Your task to perform on an android device: What's on my calendar tomorrow? Image 0: 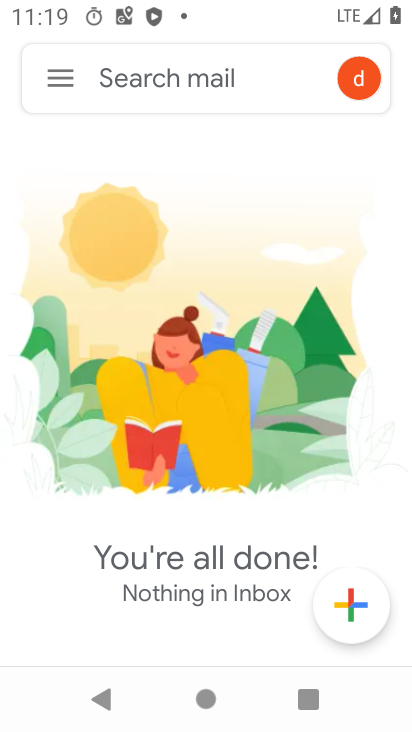
Step 0: press home button
Your task to perform on an android device: What's on my calendar tomorrow? Image 1: 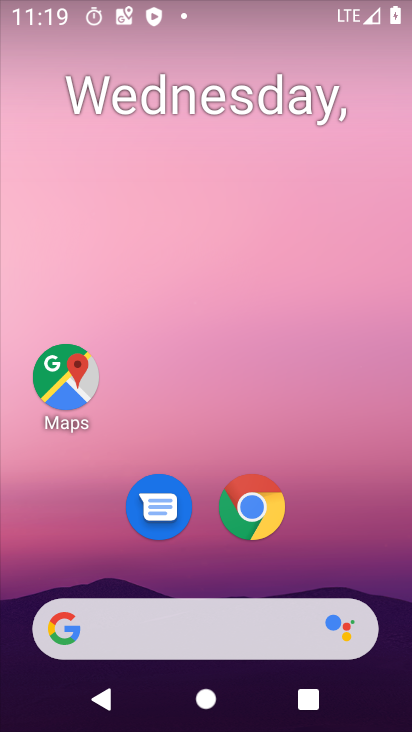
Step 1: drag from (240, 721) to (209, 93)
Your task to perform on an android device: What's on my calendar tomorrow? Image 2: 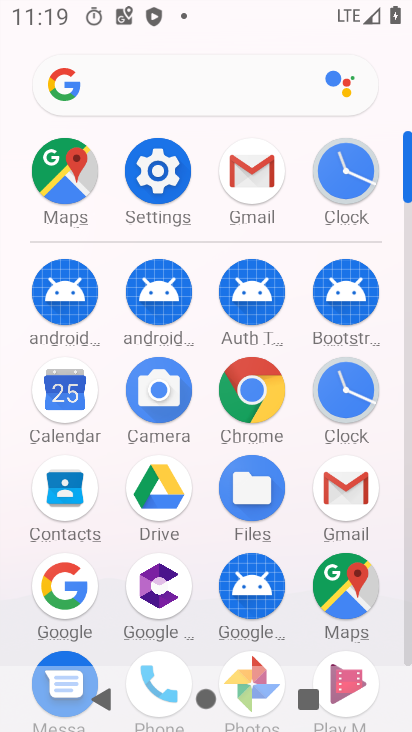
Step 2: click (73, 398)
Your task to perform on an android device: What's on my calendar tomorrow? Image 3: 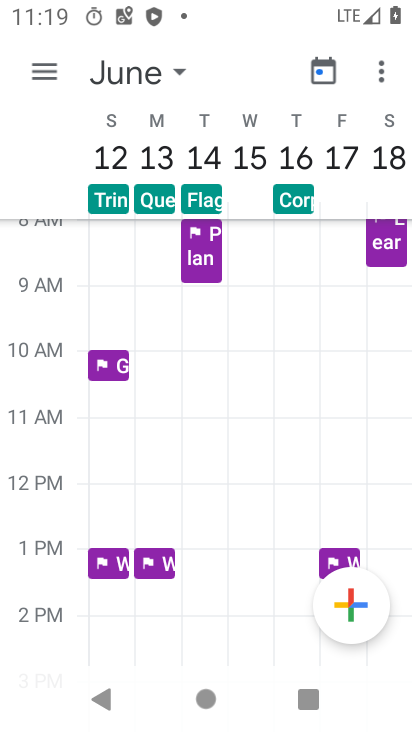
Step 3: click (183, 65)
Your task to perform on an android device: What's on my calendar tomorrow? Image 4: 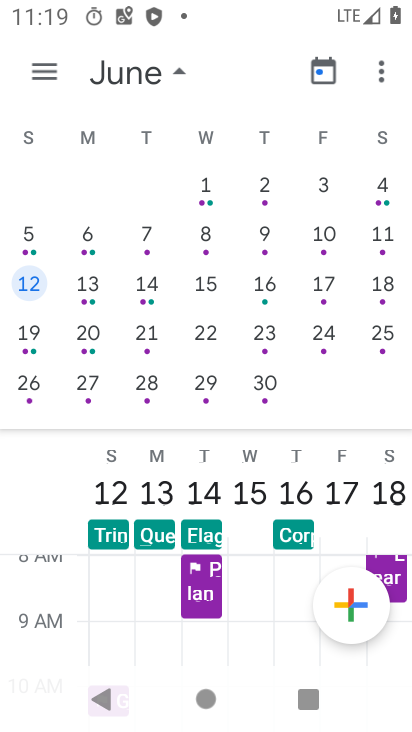
Step 4: drag from (40, 314) to (410, 327)
Your task to perform on an android device: What's on my calendar tomorrow? Image 5: 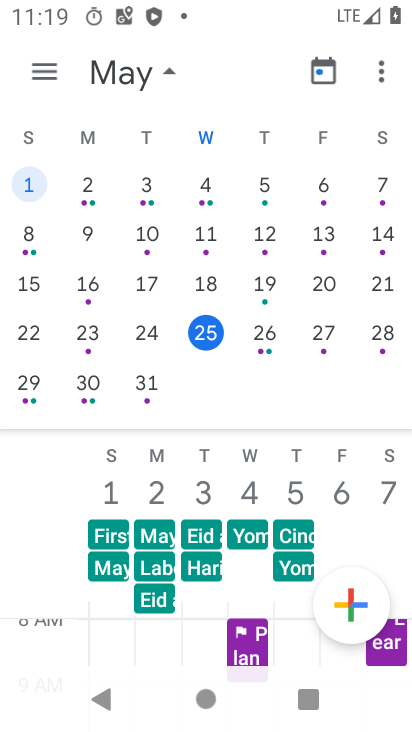
Step 5: click (263, 331)
Your task to perform on an android device: What's on my calendar tomorrow? Image 6: 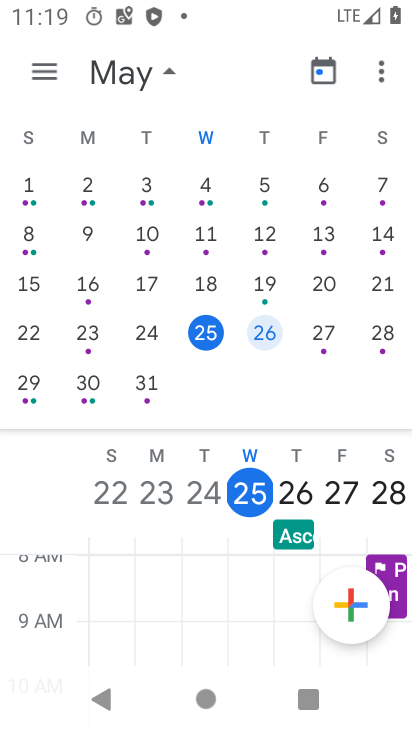
Step 6: click (292, 488)
Your task to perform on an android device: What's on my calendar tomorrow? Image 7: 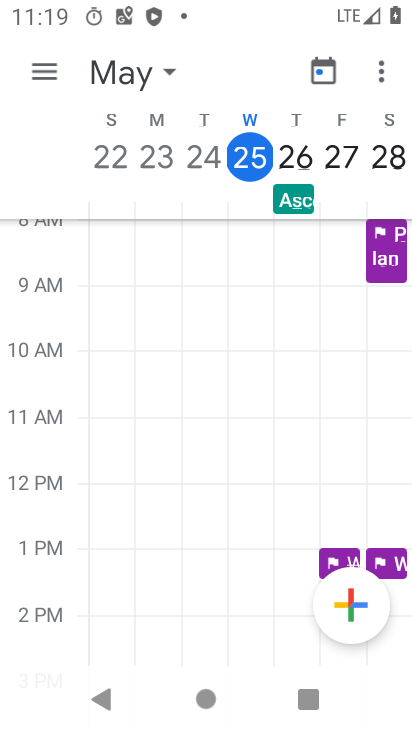
Step 7: click (299, 147)
Your task to perform on an android device: What's on my calendar tomorrow? Image 8: 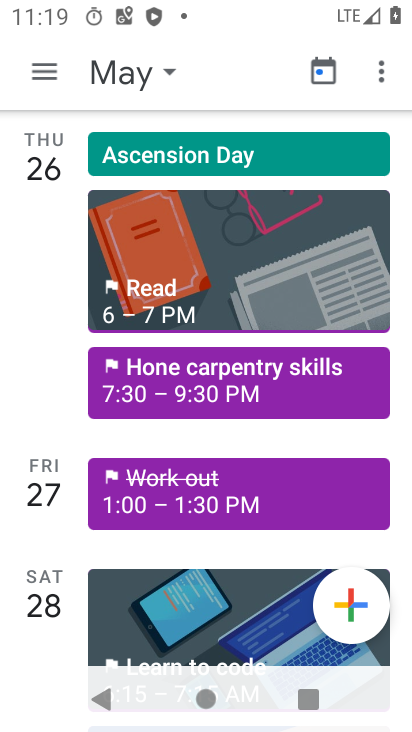
Step 8: task complete